Your task to perform on an android device: read, delete, or share a saved page in the chrome app Image 0: 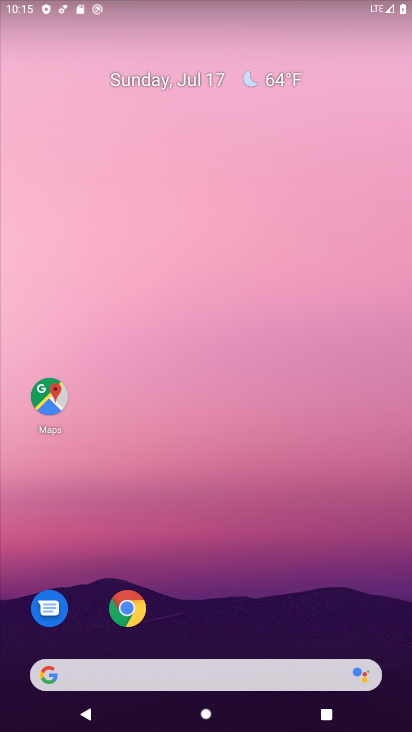
Step 0: drag from (355, 627) to (200, 0)
Your task to perform on an android device: read, delete, or share a saved page in the chrome app Image 1: 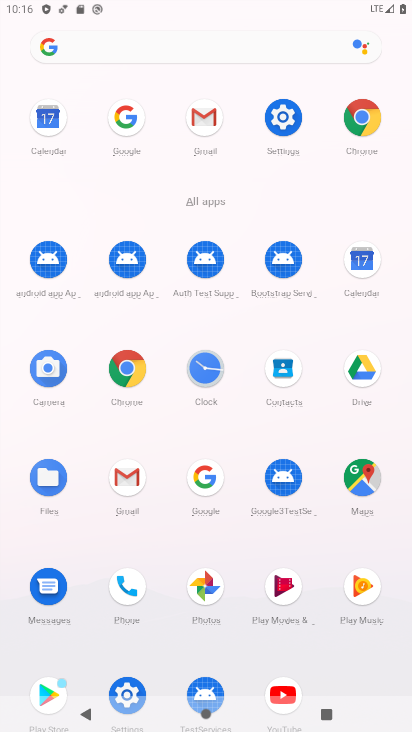
Step 1: click (117, 370)
Your task to perform on an android device: read, delete, or share a saved page in the chrome app Image 2: 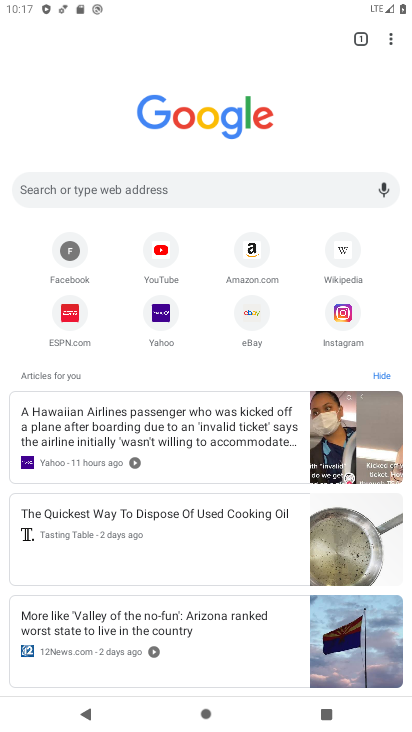
Step 2: task complete